Your task to perform on an android device: When is my next meeting? Image 0: 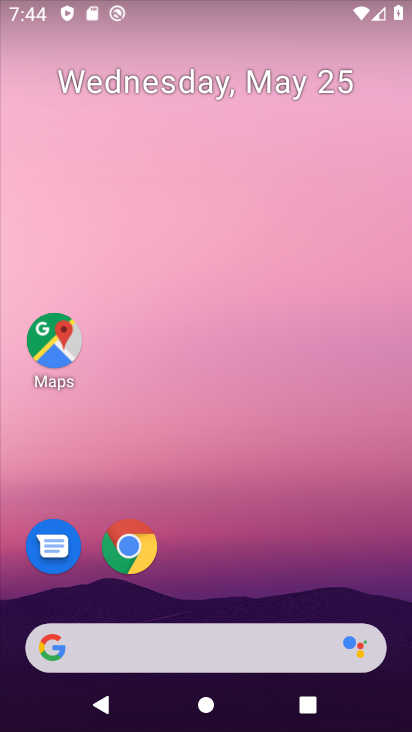
Step 0: click (399, 257)
Your task to perform on an android device: When is my next meeting? Image 1: 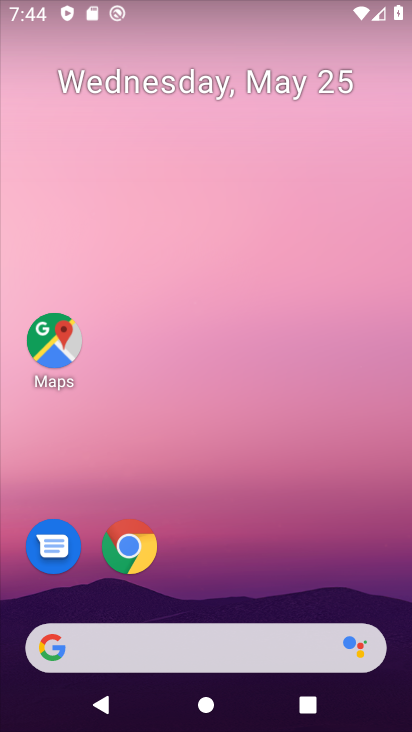
Step 1: drag from (199, 562) to (224, 0)
Your task to perform on an android device: When is my next meeting? Image 2: 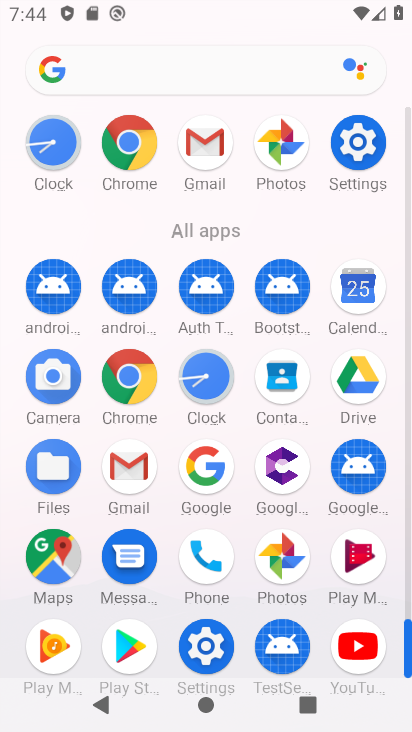
Step 2: click (353, 146)
Your task to perform on an android device: When is my next meeting? Image 3: 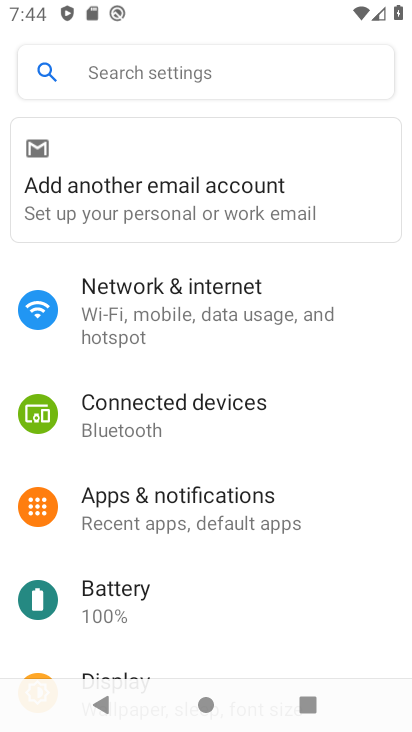
Step 3: drag from (137, 610) to (119, 246)
Your task to perform on an android device: When is my next meeting? Image 4: 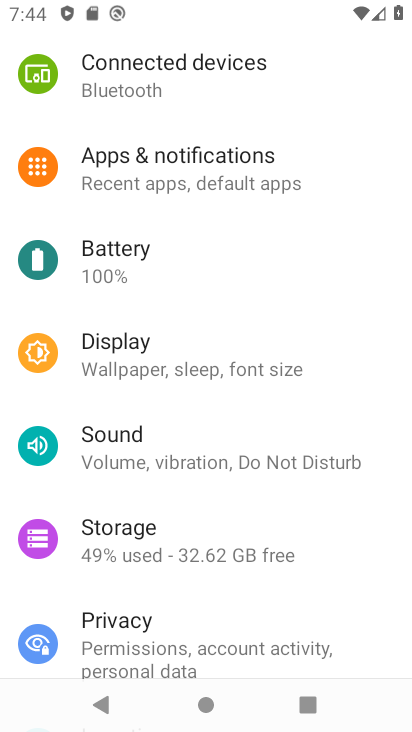
Step 4: press back button
Your task to perform on an android device: When is my next meeting? Image 5: 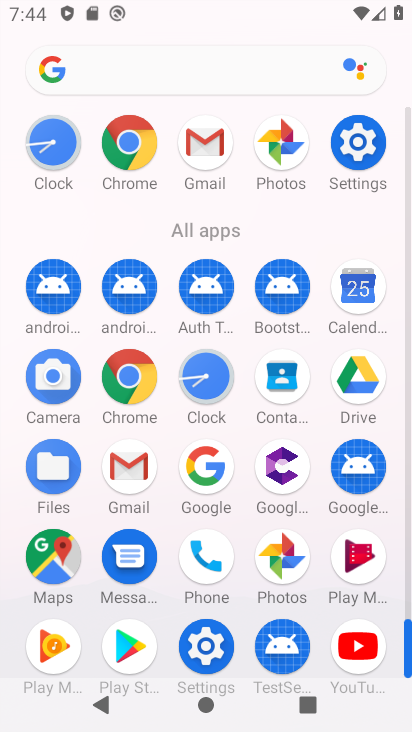
Step 5: click (344, 333)
Your task to perform on an android device: When is my next meeting? Image 6: 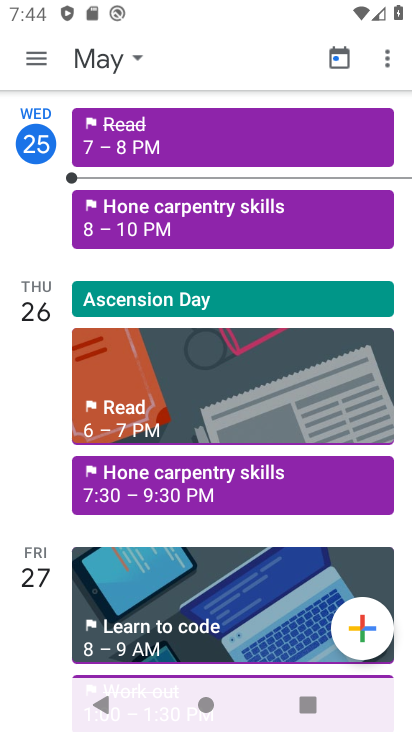
Step 6: task complete